Your task to perform on an android device: Go to sound settings Image 0: 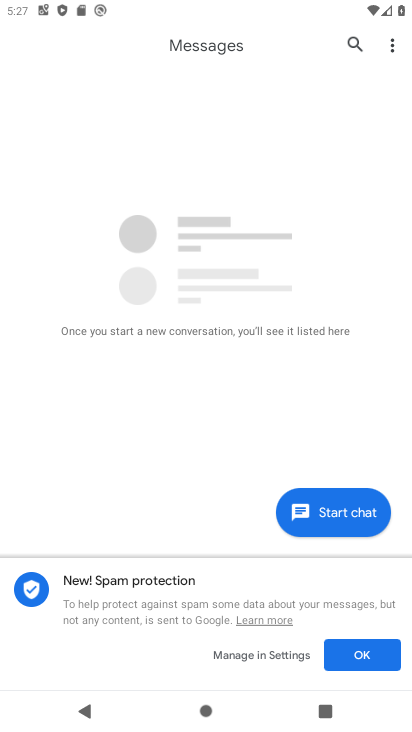
Step 0: press home button
Your task to perform on an android device: Go to sound settings Image 1: 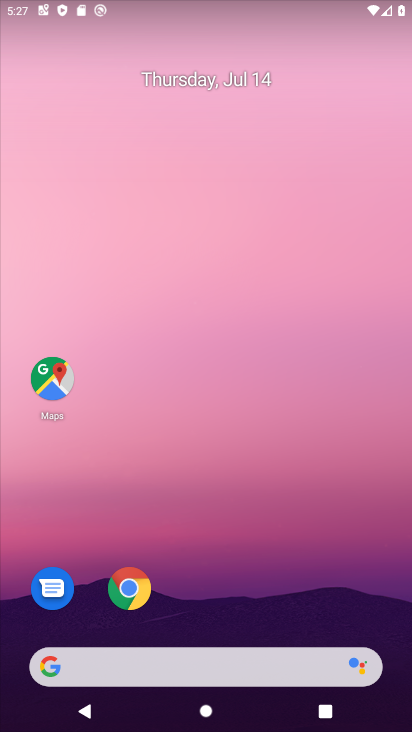
Step 1: drag from (152, 639) to (199, 269)
Your task to perform on an android device: Go to sound settings Image 2: 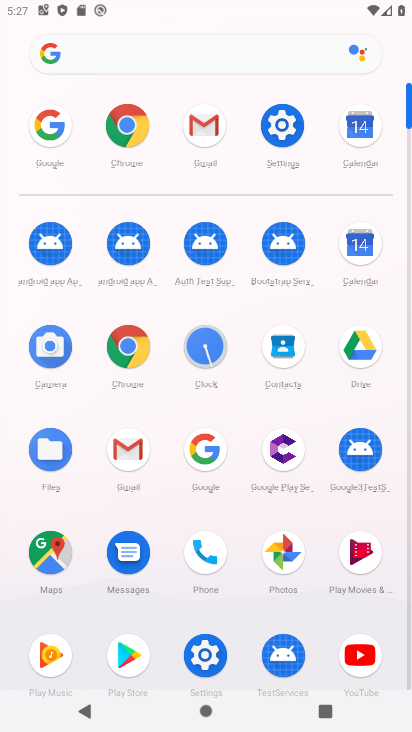
Step 2: click (277, 132)
Your task to perform on an android device: Go to sound settings Image 3: 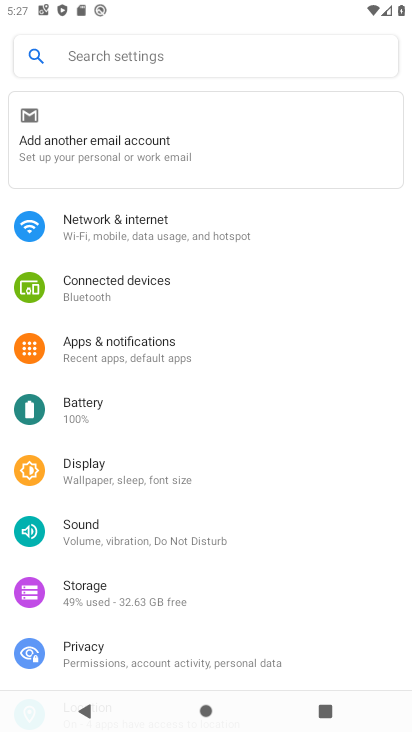
Step 3: click (79, 528)
Your task to perform on an android device: Go to sound settings Image 4: 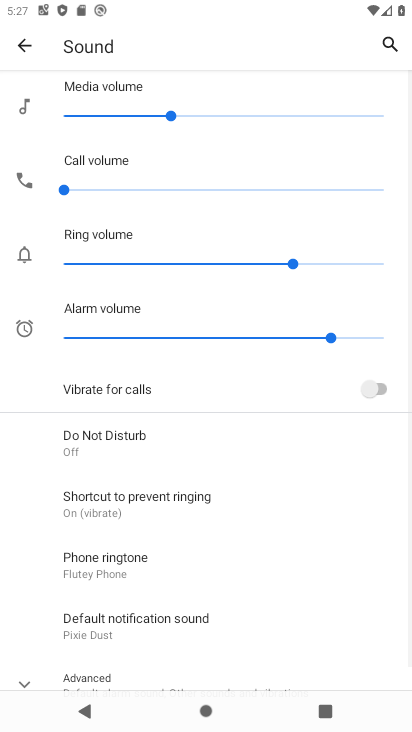
Step 4: drag from (126, 659) to (164, 371)
Your task to perform on an android device: Go to sound settings Image 5: 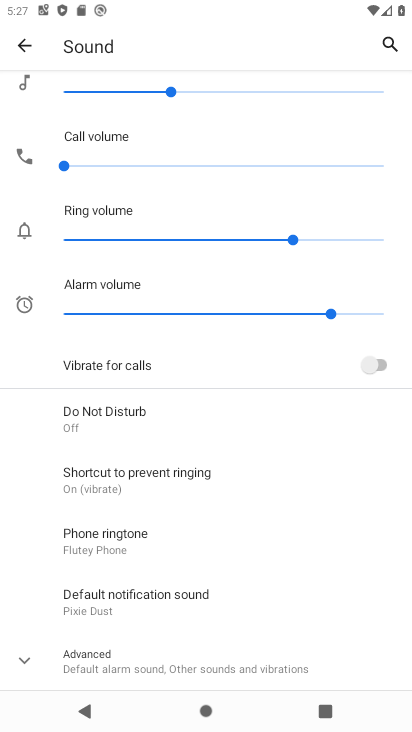
Step 5: click (80, 662)
Your task to perform on an android device: Go to sound settings Image 6: 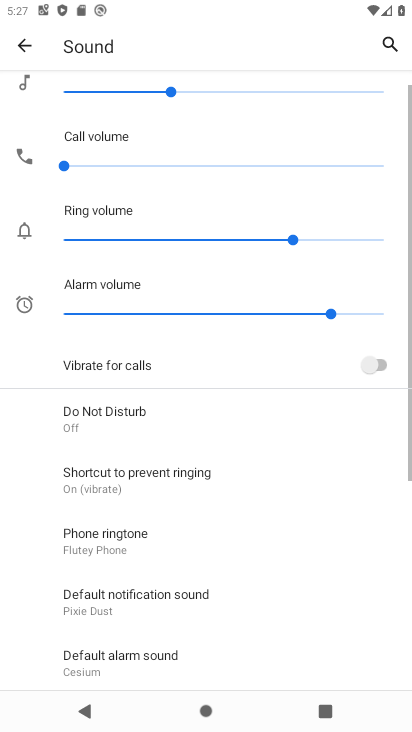
Step 6: task complete